Your task to perform on an android device: Add "jbl charge 4" to the cart on costco Image 0: 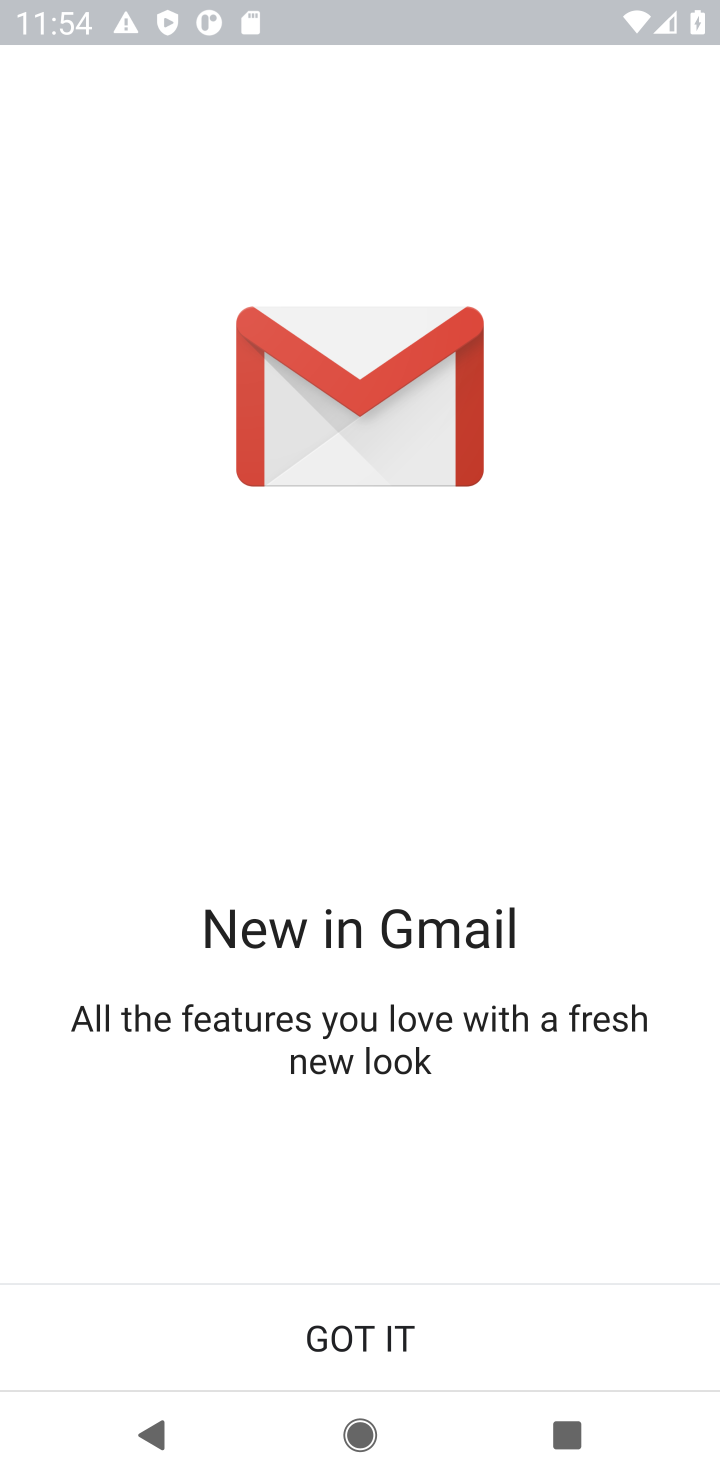
Step 0: press home button
Your task to perform on an android device: Add "jbl charge 4" to the cart on costco Image 1: 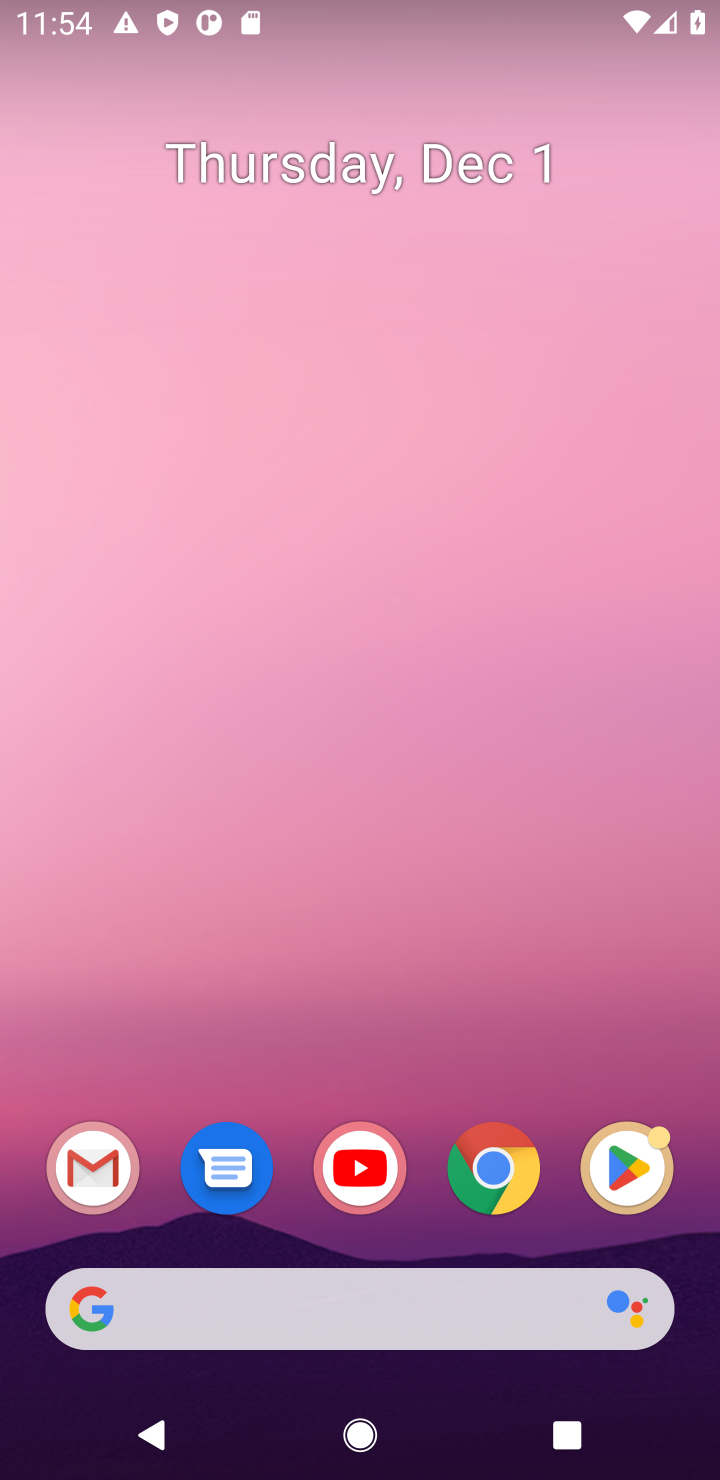
Step 1: click (482, 1189)
Your task to perform on an android device: Add "jbl charge 4" to the cart on costco Image 2: 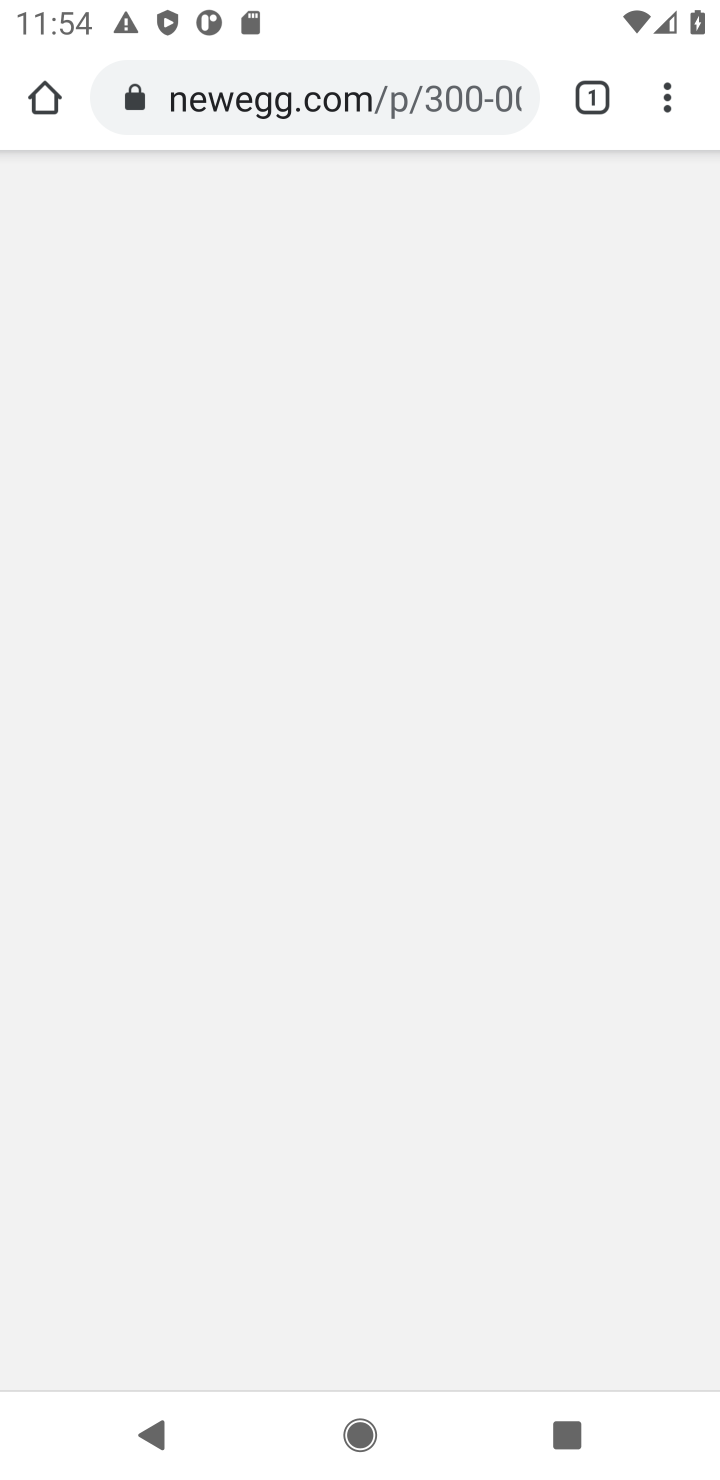
Step 2: click (311, 83)
Your task to perform on an android device: Add "jbl charge 4" to the cart on costco Image 3: 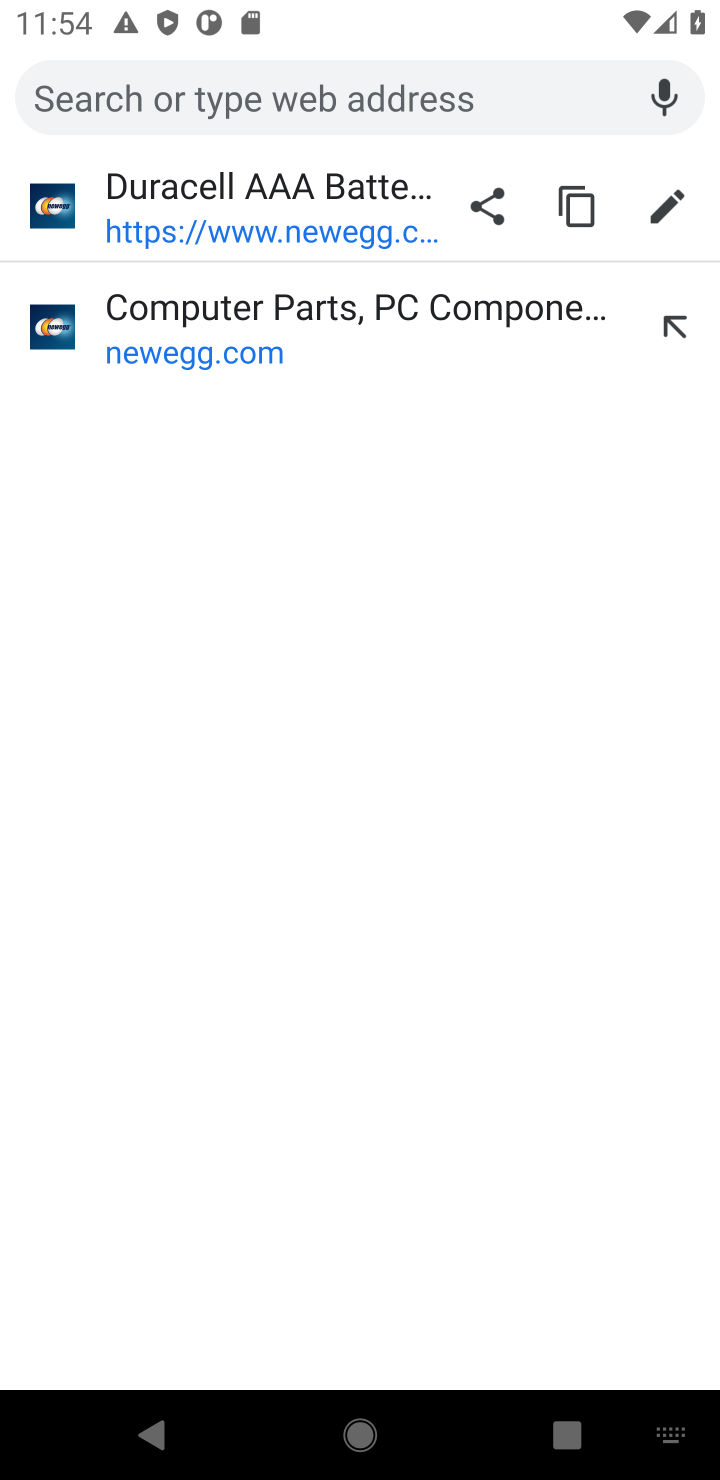
Step 3: type "costco"
Your task to perform on an android device: Add "jbl charge 4" to the cart on costco Image 4: 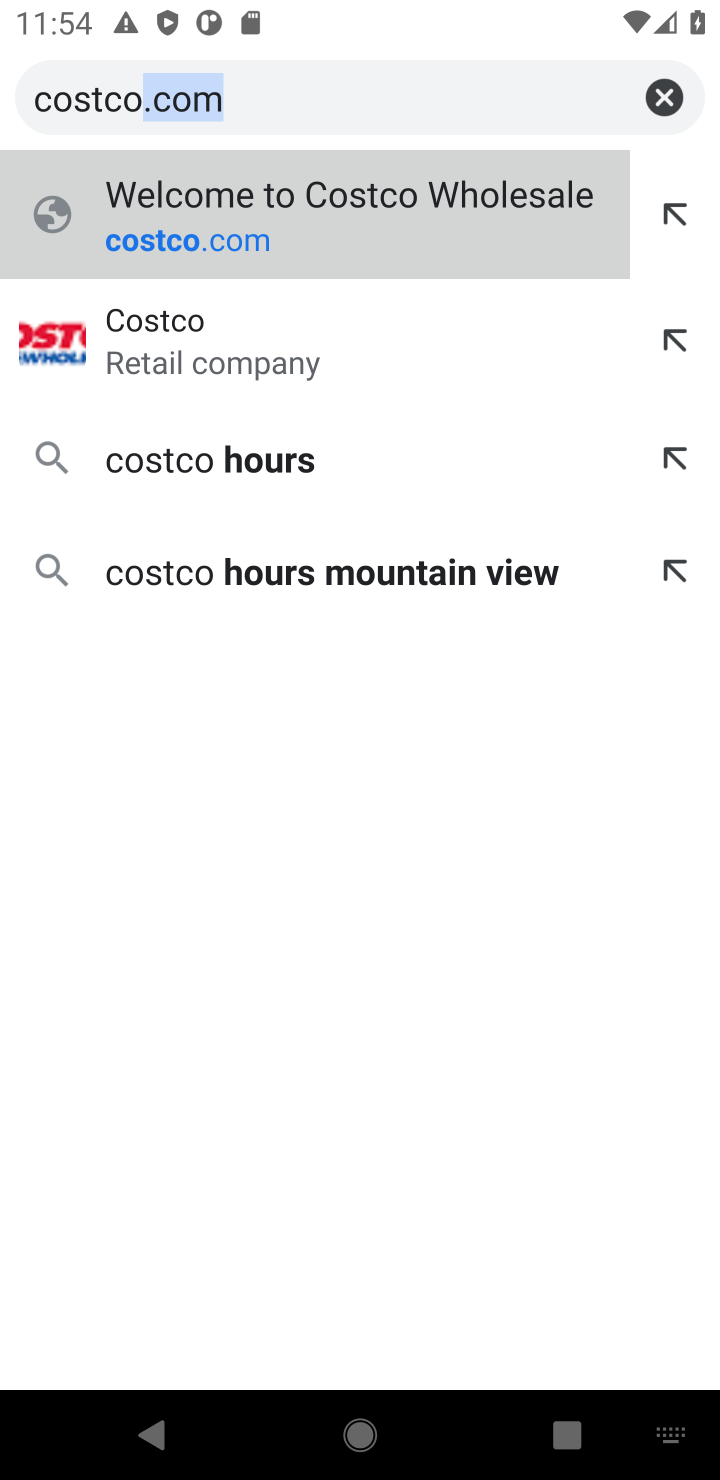
Step 4: click (155, 240)
Your task to perform on an android device: Add "jbl charge 4" to the cart on costco Image 5: 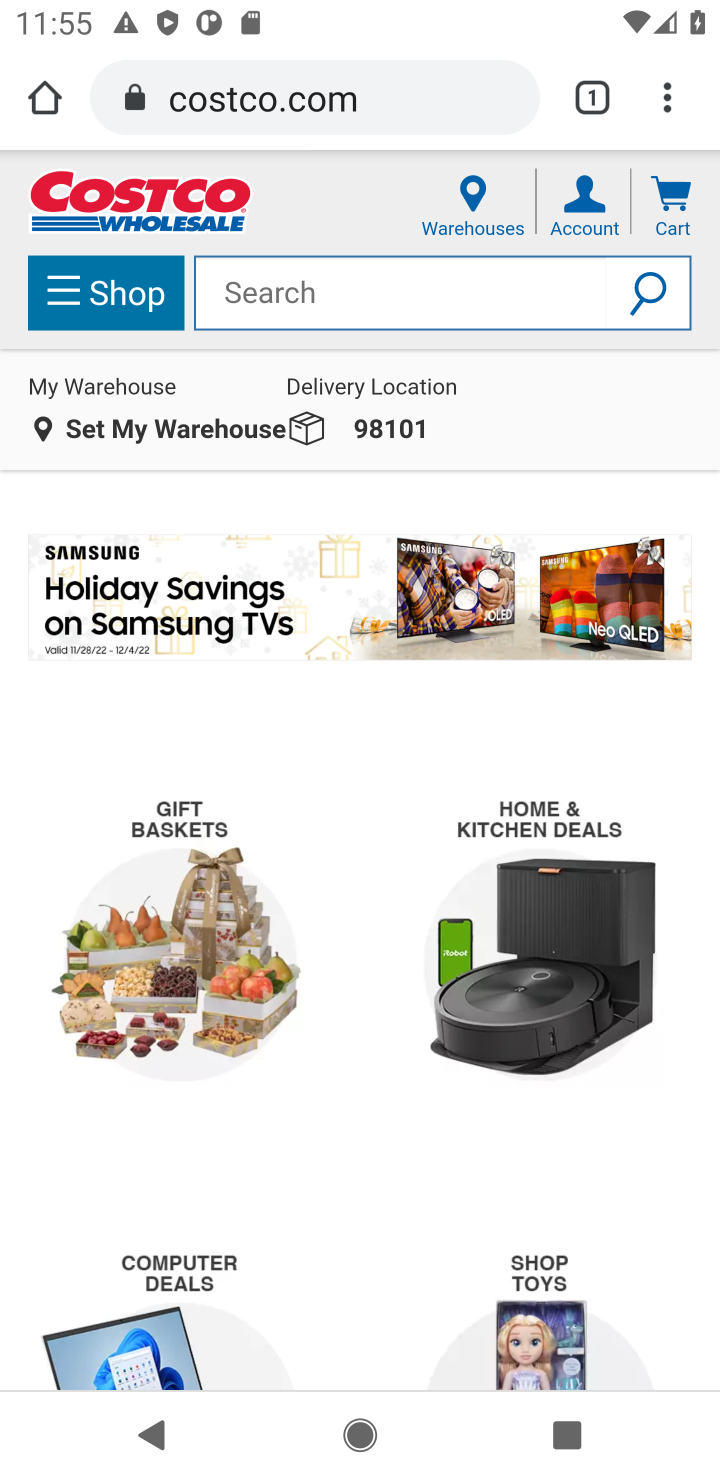
Step 5: click (356, 280)
Your task to perform on an android device: Add "jbl charge 4" to the cart on costco Image 6: 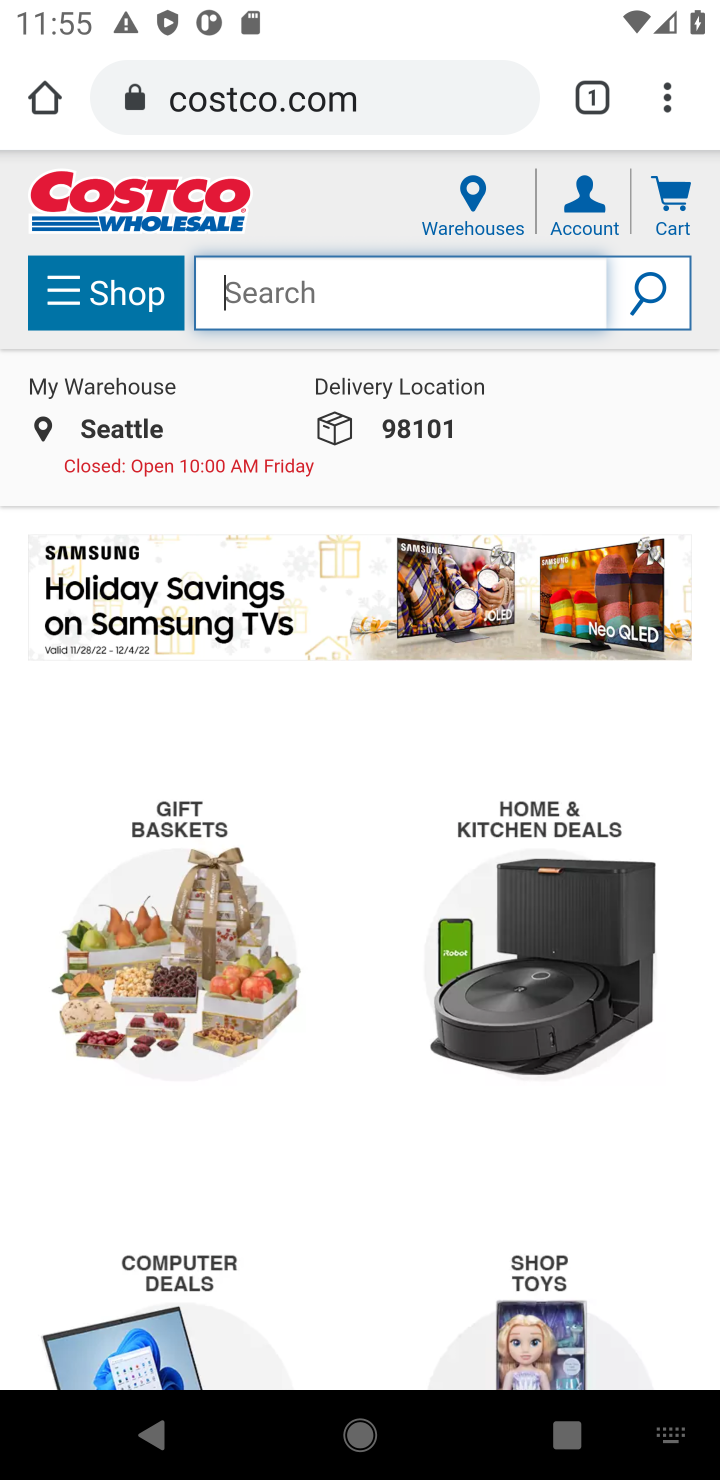
Step 6: type "jbl charge 4"
Your task to perform on an android device: Add "jbl charge 4" to the cart on costco Image 7: 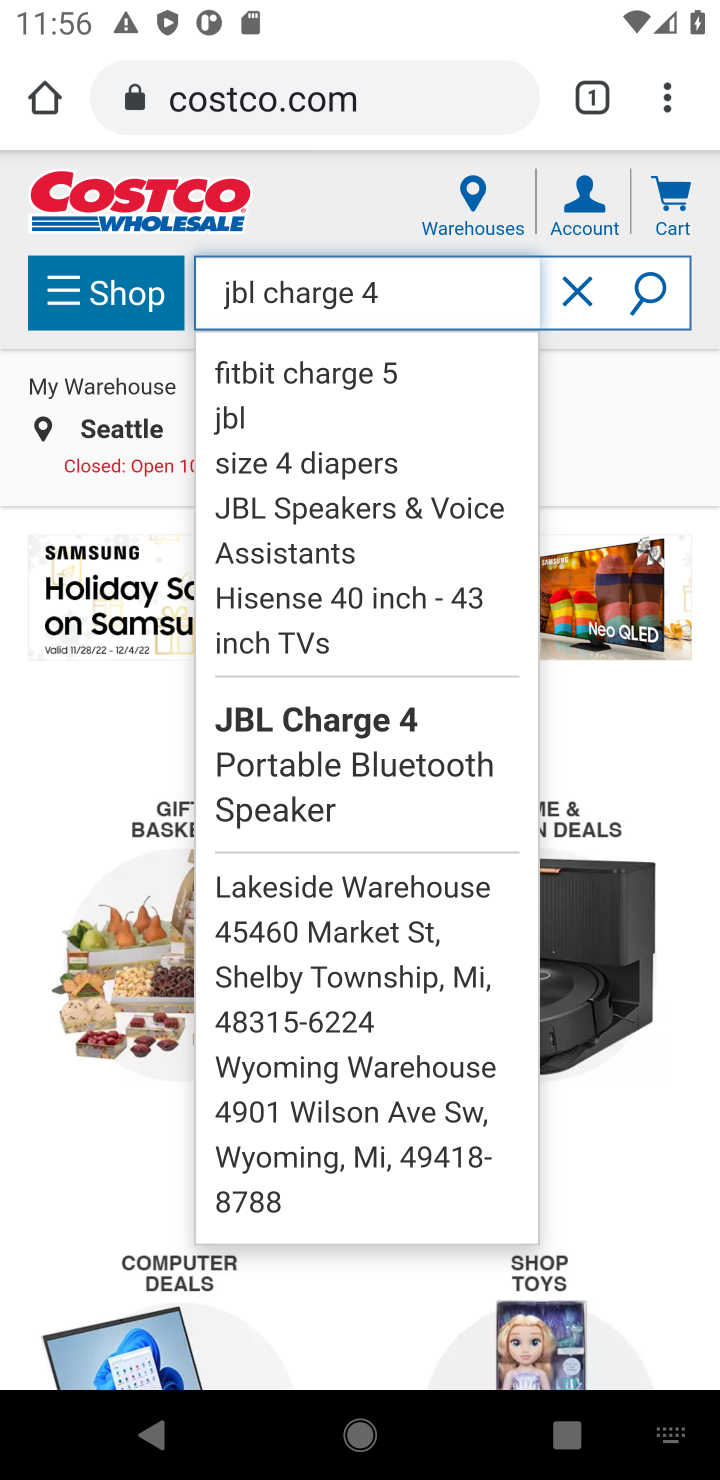
Step 7: click (302, 377)
Your task to perform on an android device: Add "jbl charge 4" to the cart on costco Image 8: 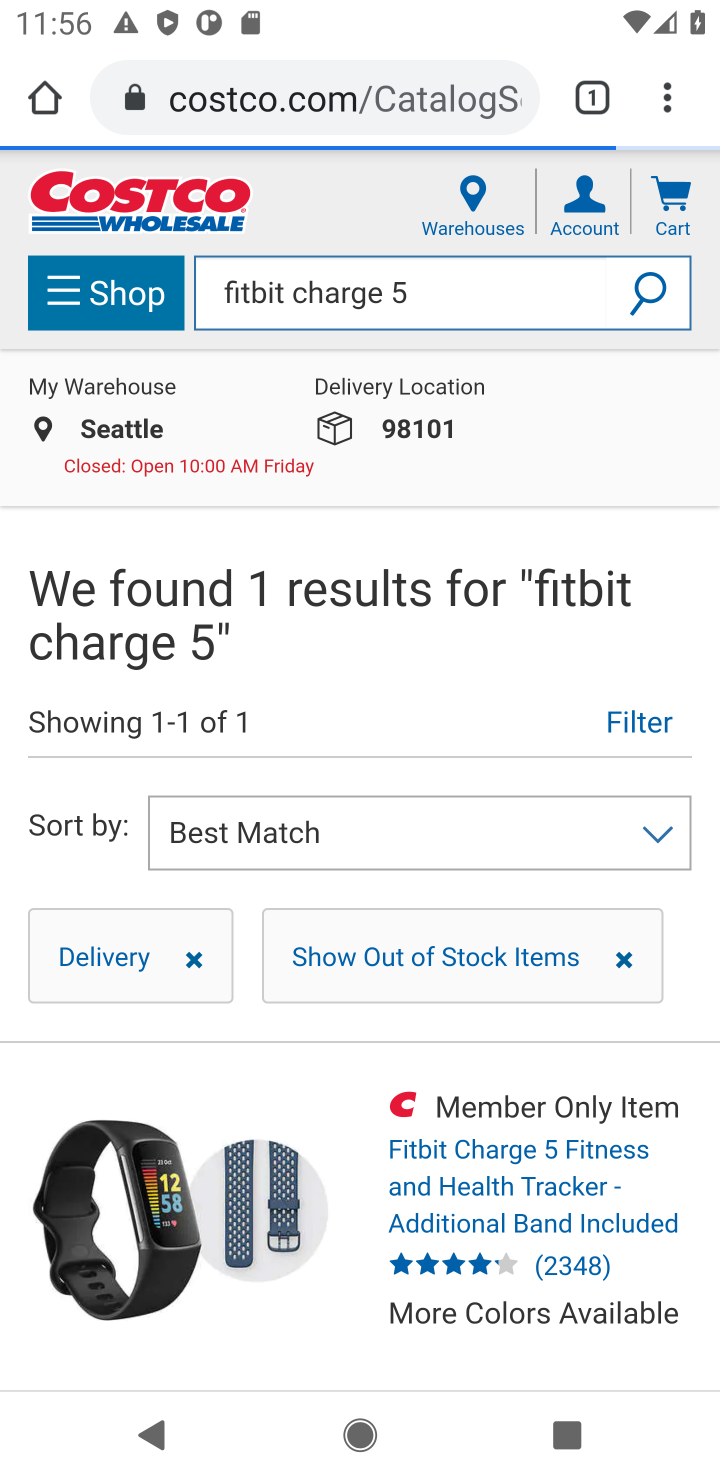
Step 8: click (154, 1213)
Your task to perform on an android device: Add "jbl charge 4" to the cart on costco Image 9: 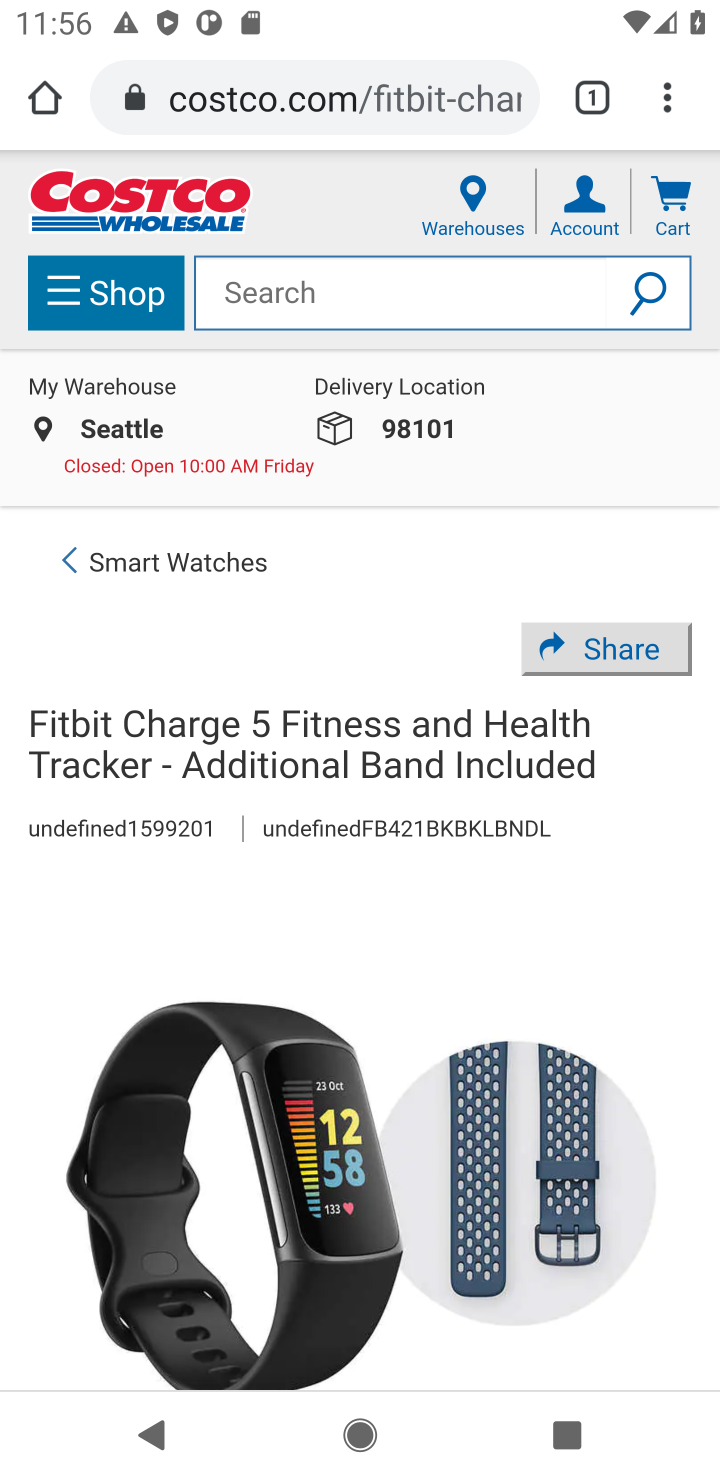
Step 9: task complete